Your task to perform on an android device: delete location history Image 0: 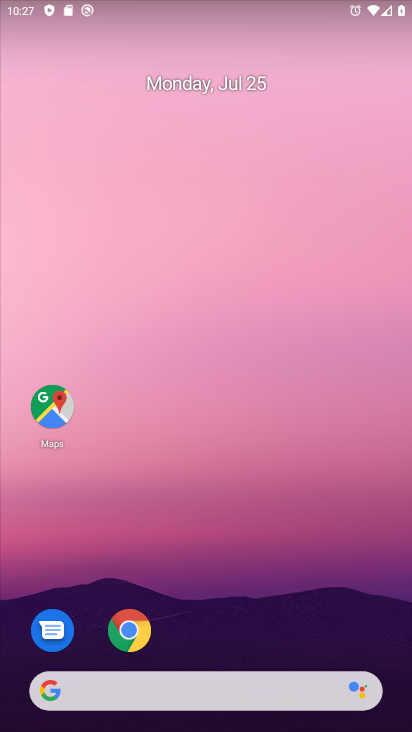
Step 0: drag from (206, 704) to (182, 178)
Your task to perform on an android device: delete location history Image 1: 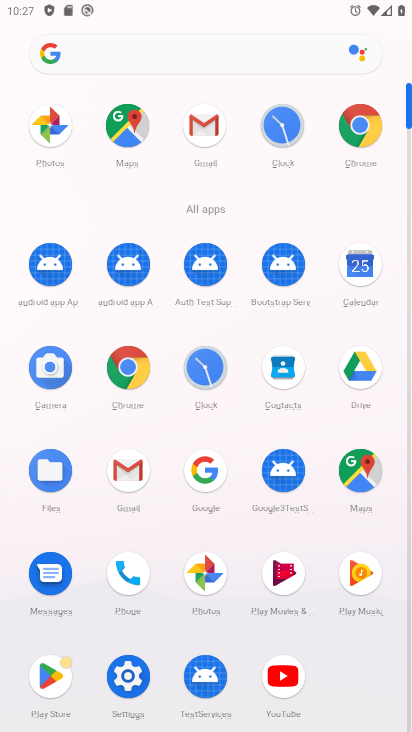
Step 1: click (127, 124)
Your task to perform on an android device: delete location history Image 2: 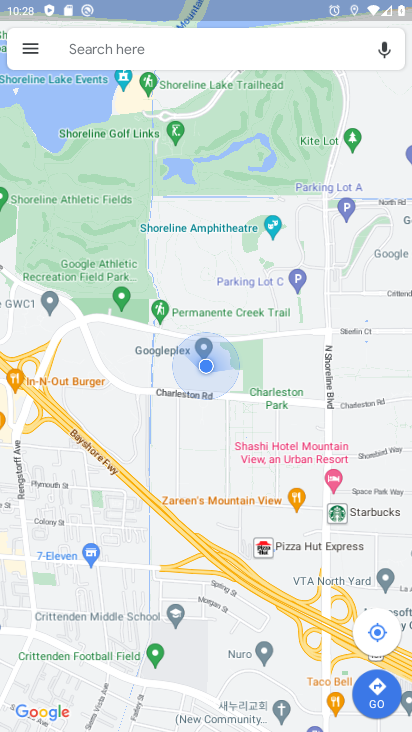
Step 2: click (28, 46)
Your task to perform on an android device: delete location history Image 3: 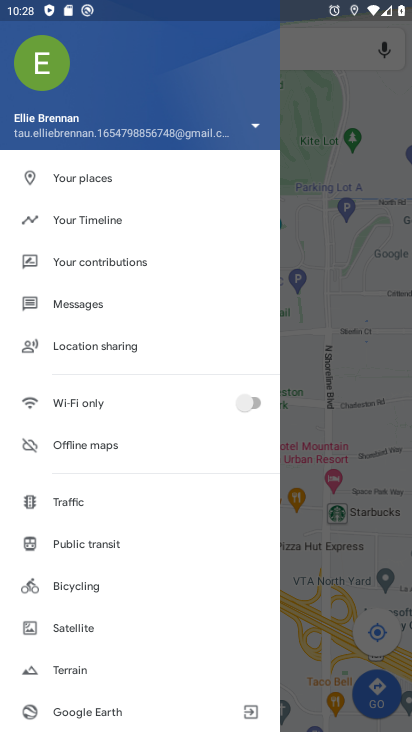
Step 3: click (72, 217)
Your task to perform on an android device: delete location history Image 4: 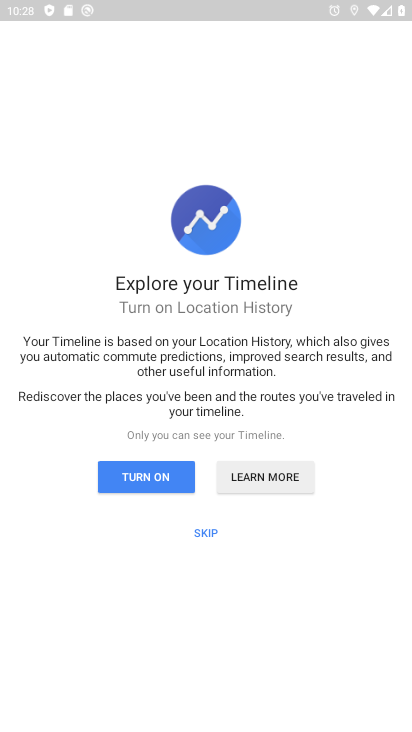
Step 4: click (141, 477)
Your task to perform on an android device: delete location history Image 5: 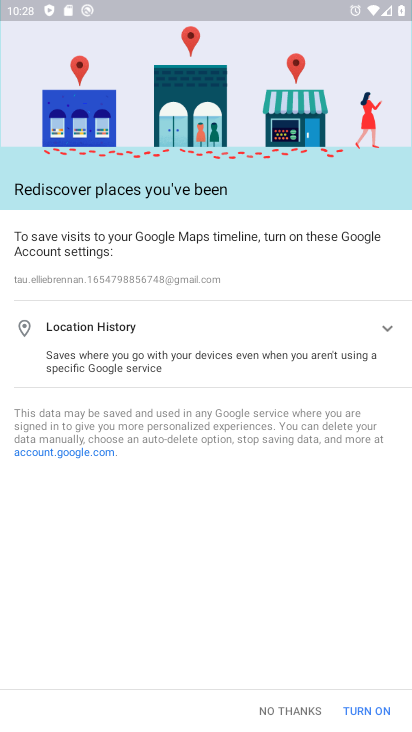
Step 5: click (372, 711)
Your task to perform on an android device: delete location history Image 6: 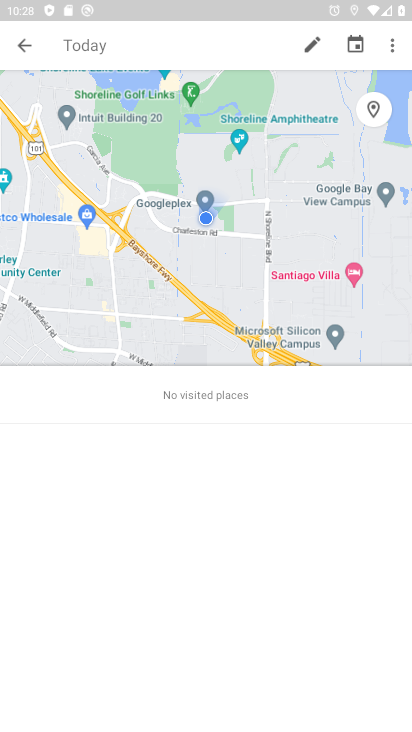
Step 6: click (389, 50)
Your task to perform on an android device: delete location history Image 7: 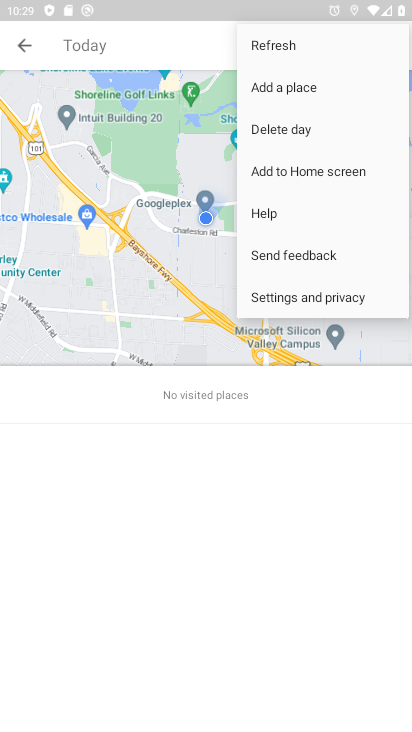
Step 7: click (305, 303)
Your task to perform on an android device: delete location history Image 8: 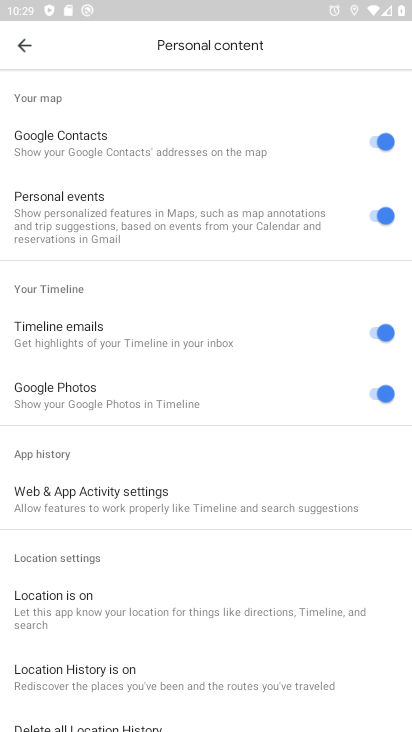
Step 8: drag from (168, 636) to (146, 313)
Your task to perform on an android device: delete location history Image 9: 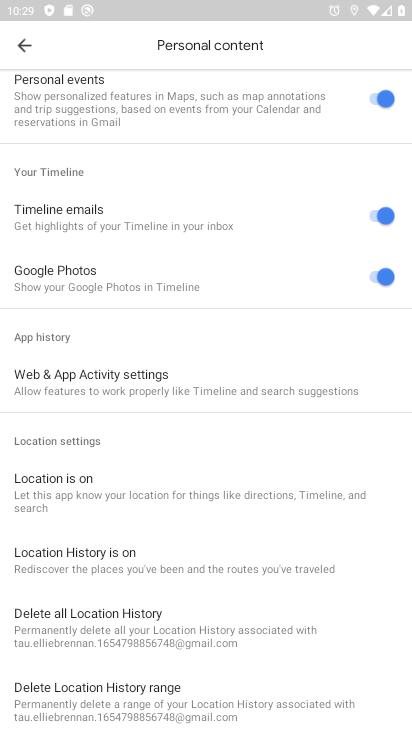
Step 9: click (171, 634)
Your task to perform on an android device: delete location history Image 10: 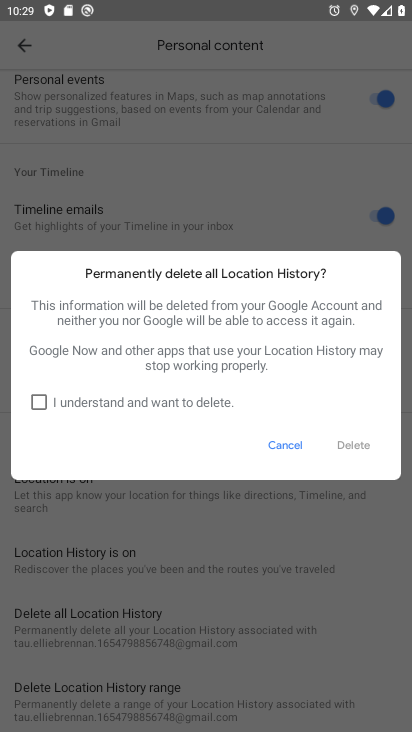
Step 10: click (191, 405)
Your task to perform on an android device: delete location history Image 11: 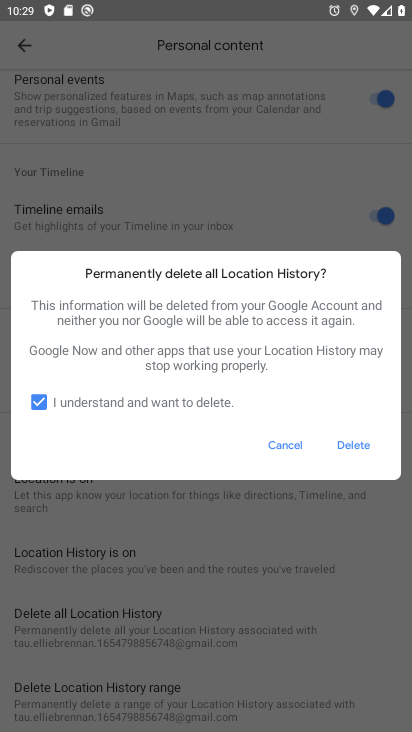
Step 11: click (350, 437)
Your task to perform on an android device: delete location history Image 12: 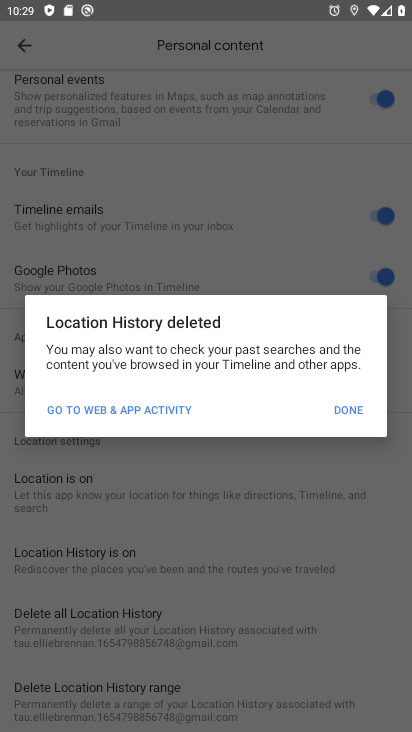
Step 12: click (345, 408)
Your task to perform on an android device: delete location history Image 13: 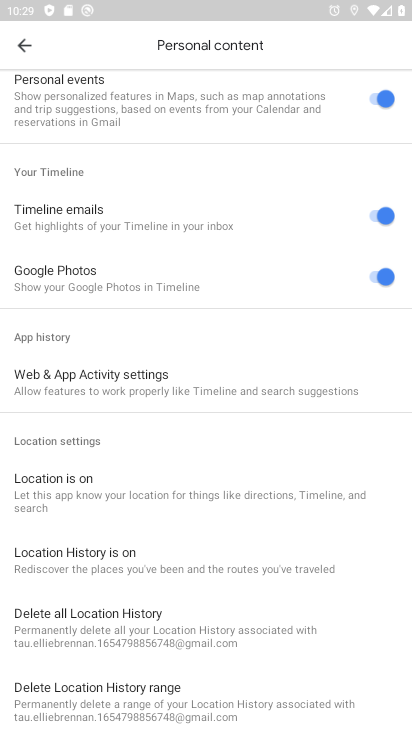
Step 13: task complete